Your task to perform on an android device: show emergency info Image 0: 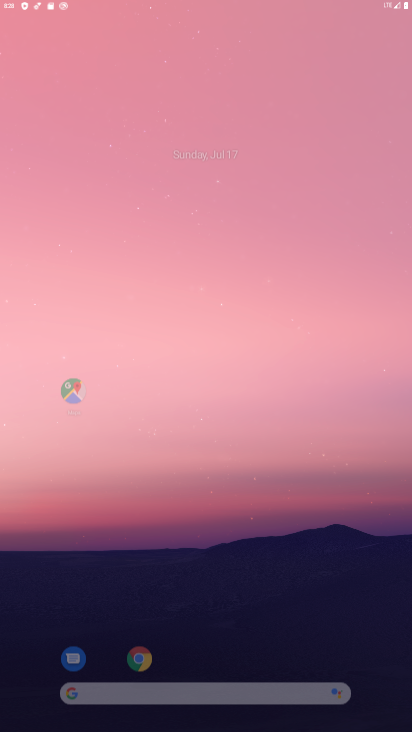
Step 0: click (357, 621)
Your task to perform on an android device: show emergency info Image 1: 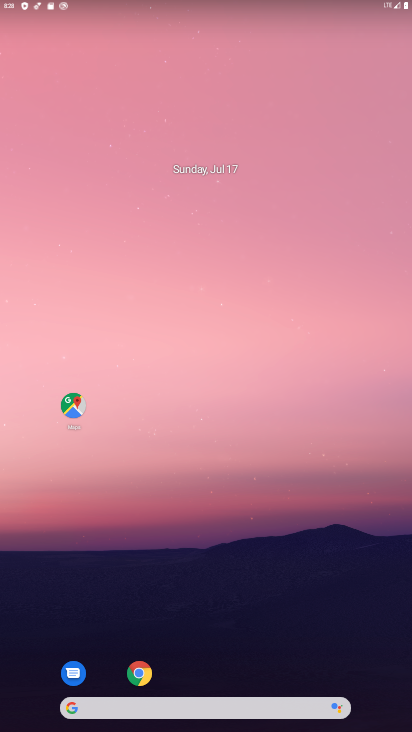
Step 1: drag from (318, 677) to (289, 22)
Your task to perform on an android device: show emergency info Image 2: 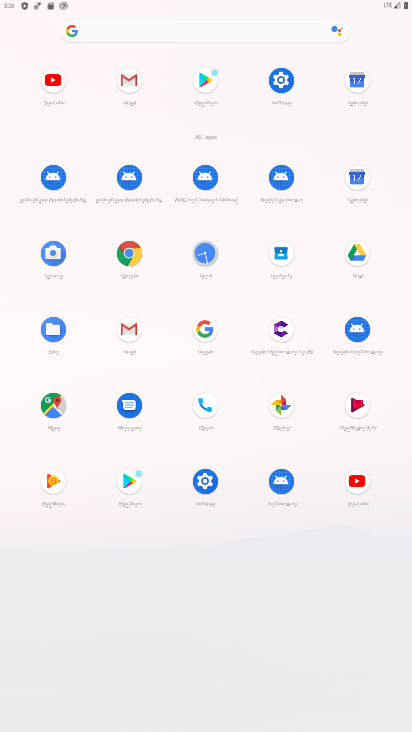
Step 2: click (212, 479)
Your task to perform on an android device: show emergency info Image 3: 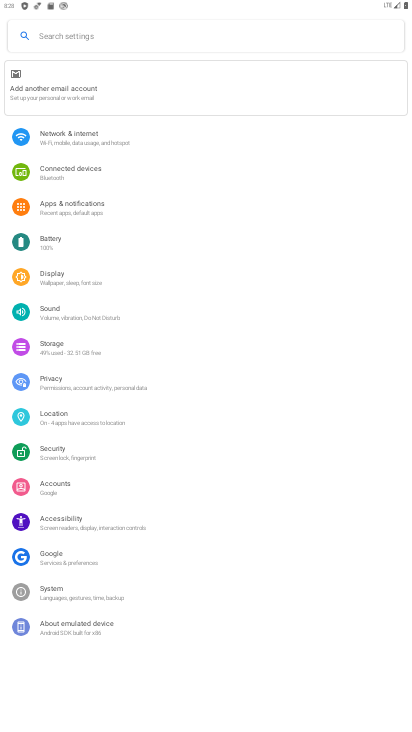
Step 3: click (85, 620)
Your task to perform on an android device: show emergency info Image 4: 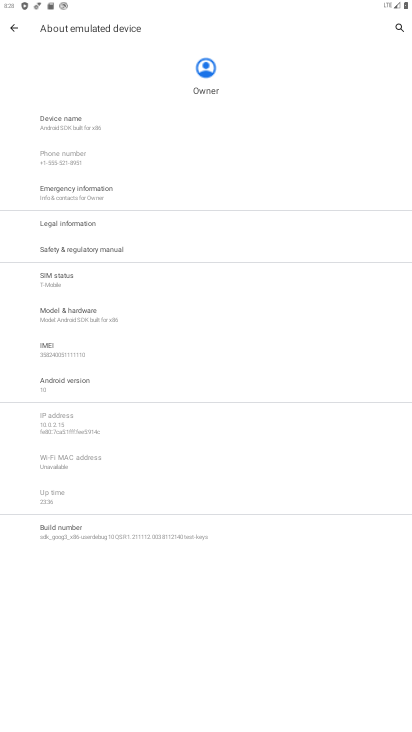
Step 4: click (120, 194)
Your task to perform on an android device: show emergency info Image 5: 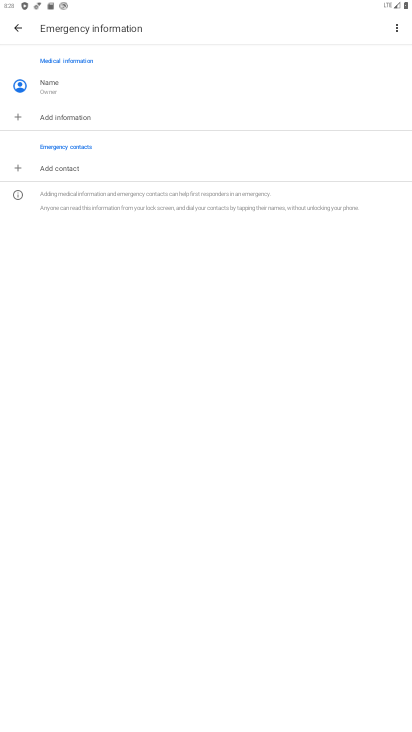
Step 5: task complete